Your task to perform on an android device: How much does a 3 bedroom apartment rent for in Houston? Image 0: 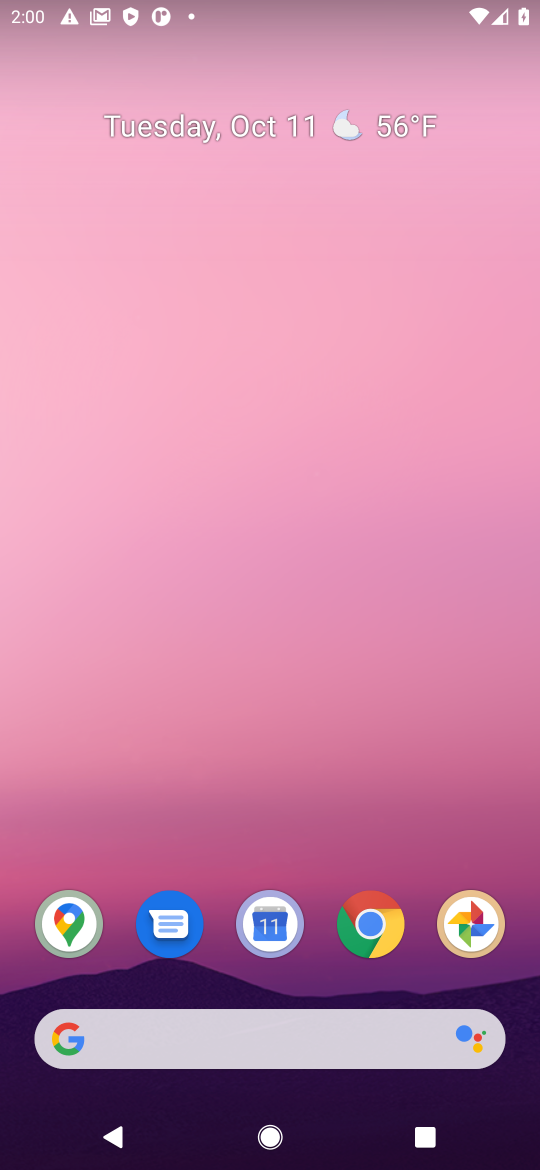
Step 0: drag from (318, 872) to (277, 97)
Your task to perform on an android device: How much does a 3 bedroom apartment rent for in Houston? Image 1: 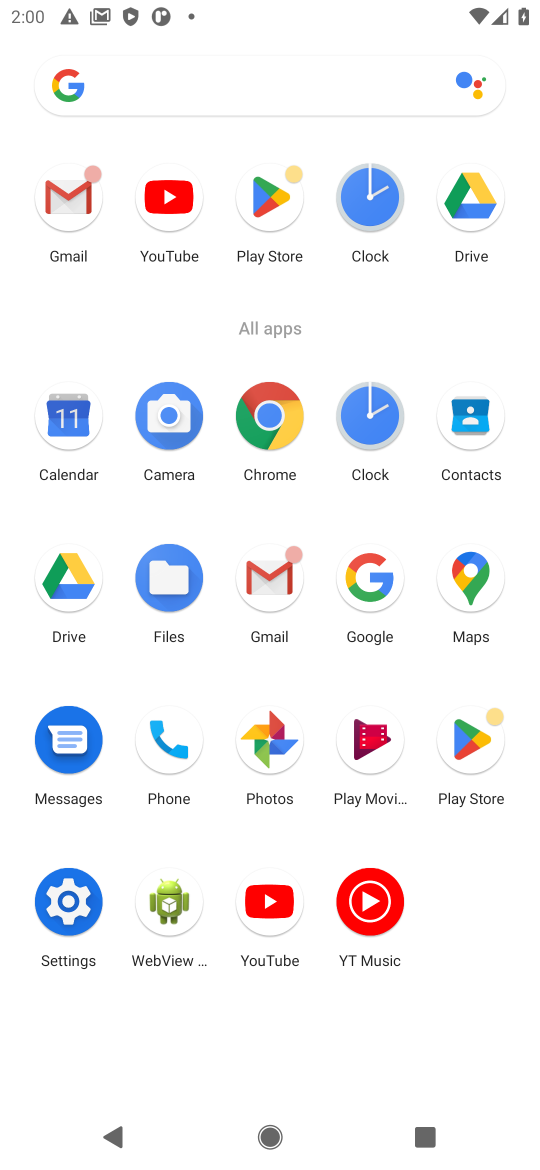
Step 1: click (381, 581)
Your task to perform on an android device: How much does a 3 bedroom apartment rent for in Houston? Image 2: 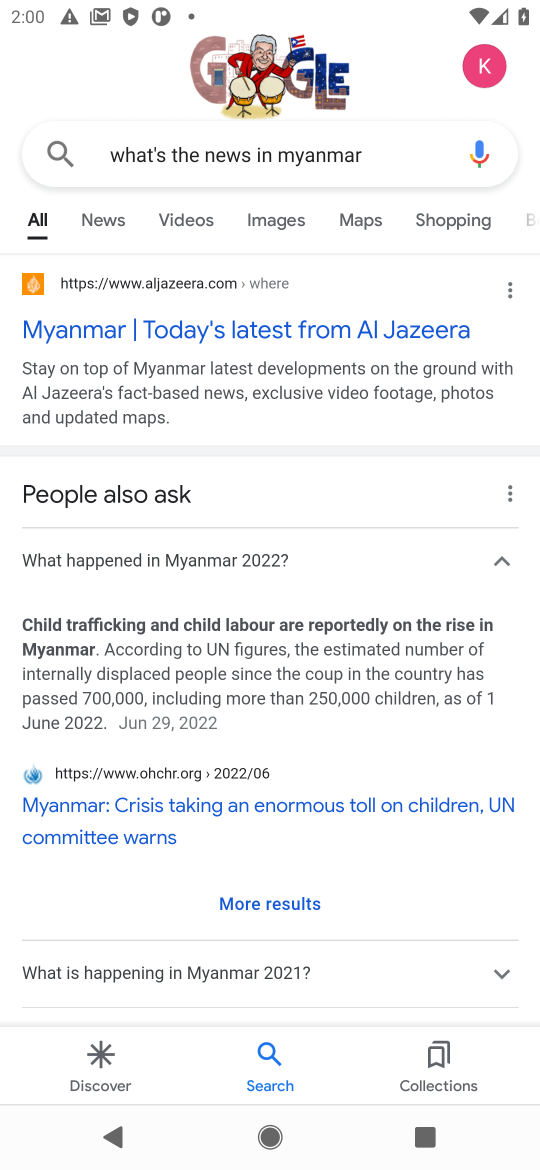
Step 2: click (400, 151)
Your task to perform on an android device: How much does a 3 bedroom apartment rent for in Houston? Image 3: 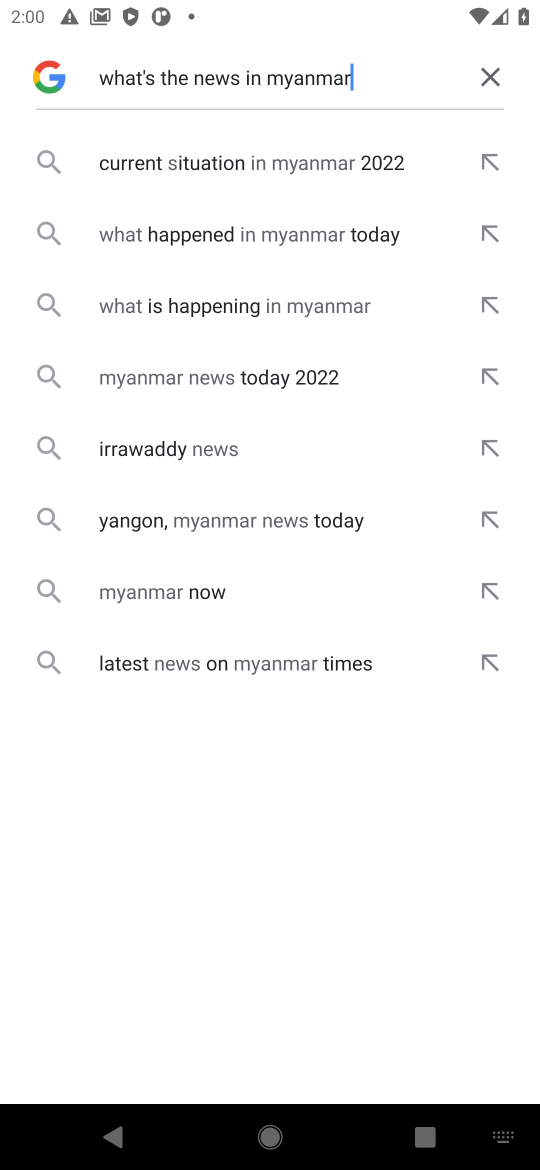
Step 3: click (479, 77)
Your task to perform on an android device: How much does a 3 bedroom apartment rent for in Houston? Image 4: 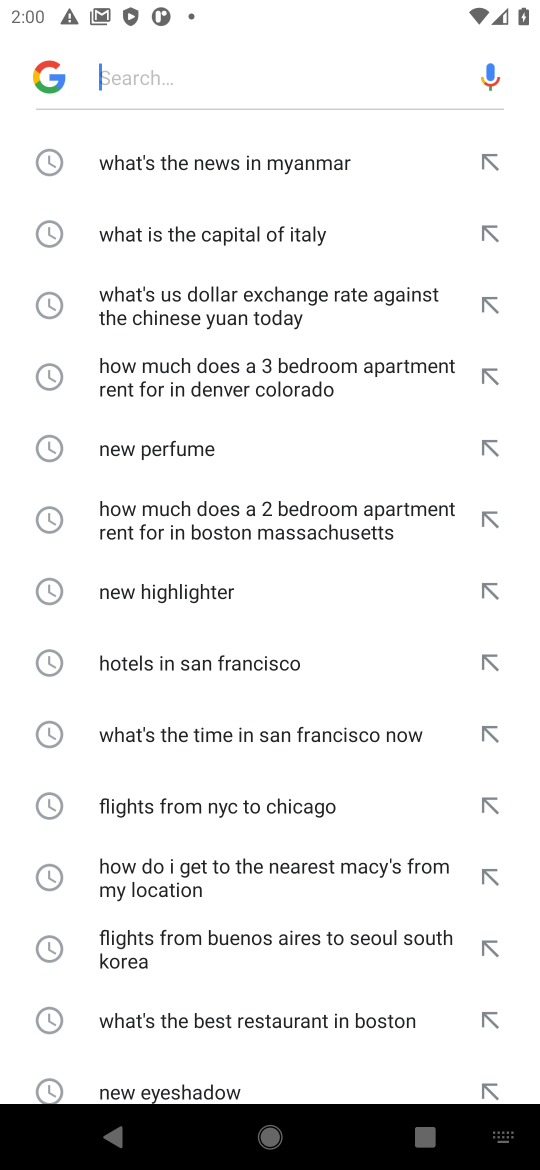
Step 4: type "How much does a 3 bedroom apartment rent for in Houston?"
Your task to perform on an android device: How much does a 3 bedroom apartment rent for in Houston? Image 5: 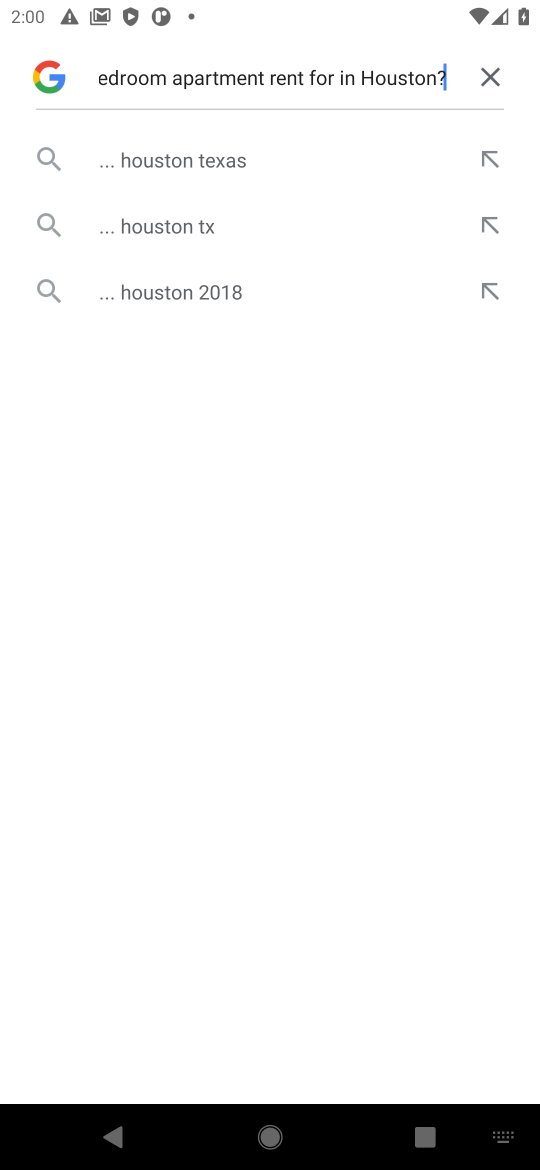
Step 5: click (175, 285)
Your task to perform on an android device: How much does a 3 bedroom apartment rent for in Houston? Image 6: 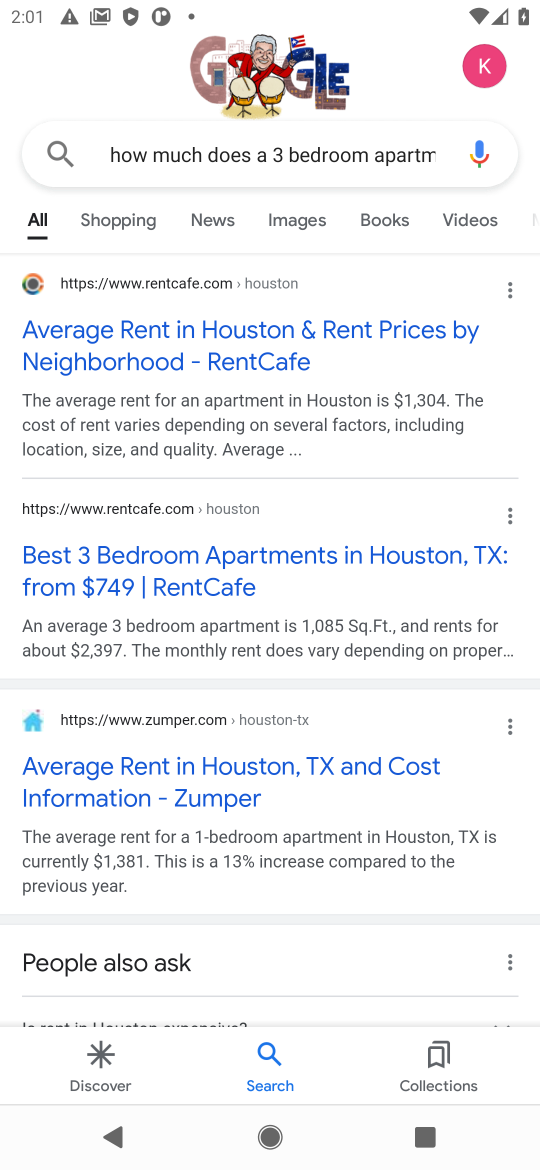
Step 6: click (123, 588)
Your task to perform on an android device: How much does a 3 bedroom apartment rent for in Houston? Image 7: 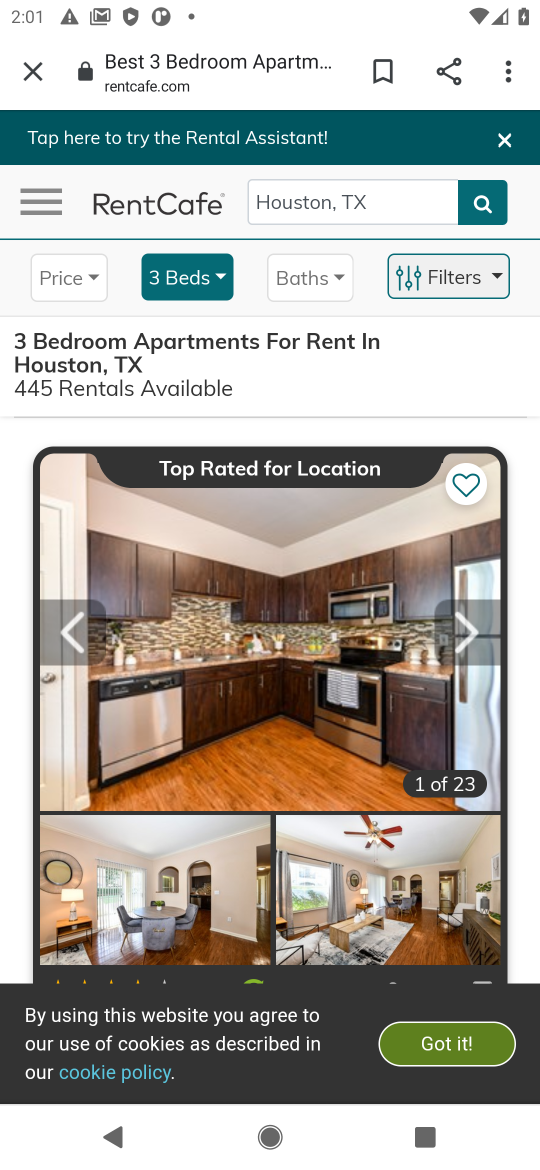
Step 7: task complete